Your task to perform on an android device: Open notification settings Image 0: 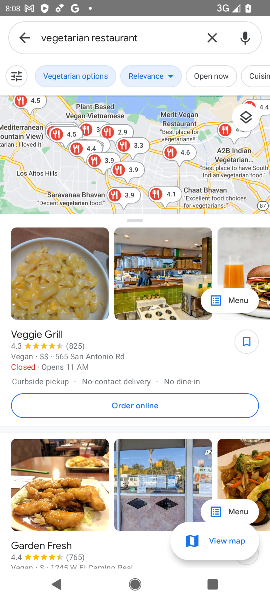
Step 0: click (24, 33)
Your task to perform on an android device: Open notification settings Image 1: 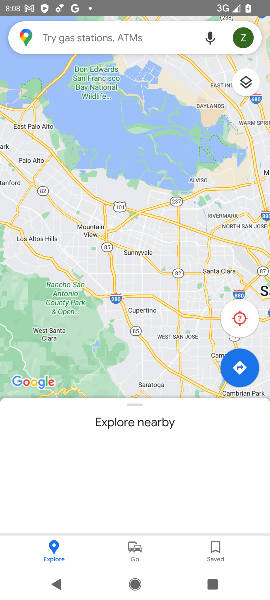
Step 1: press home button
Your task to perform on an android device: Open notification settings Image 2: 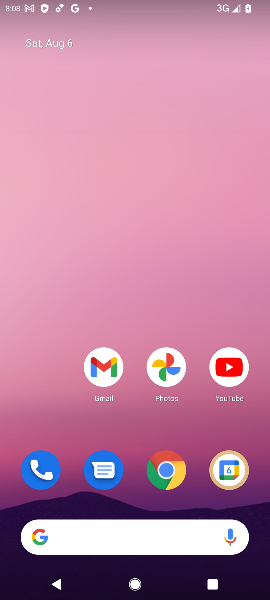
Step 2: drag from (150, 508) to (136, 229)
Your task to perform on an android device: Open notification settings Image 3: 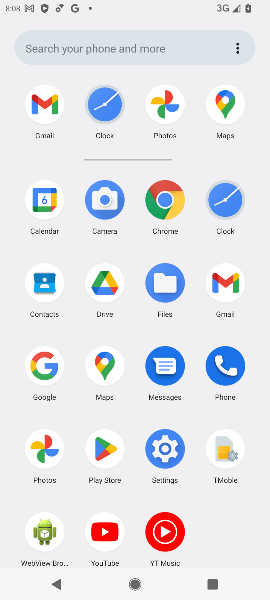
Step 3: click (157, 454)
Your task to perform on an android device: Open notification settings Image 4: 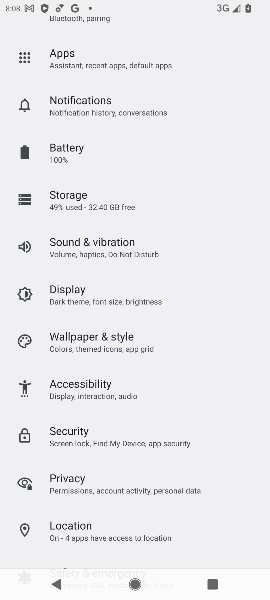
Step 4: click (135, 104)
Your task to perform on an android device: Open notification settings Image 5: 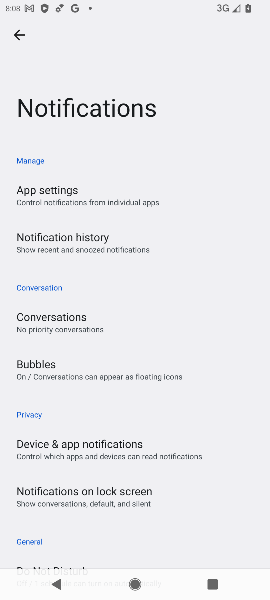
Step 5: task complete